Your task to perform on an android device: Open the web browser Image 0: 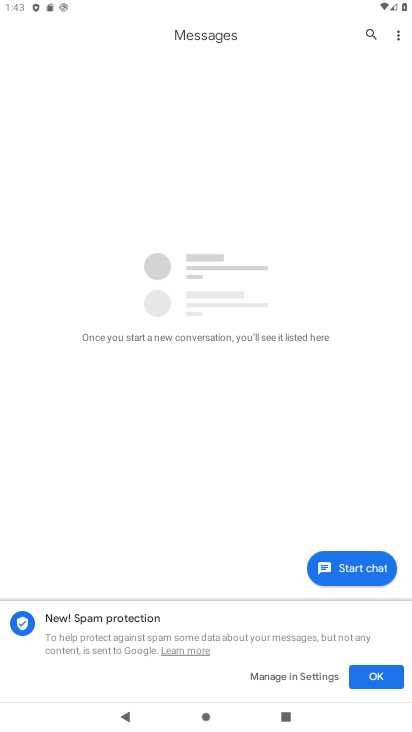
Step 0: press home button
Your task to perform on an android device: Open the web browser Image 1: 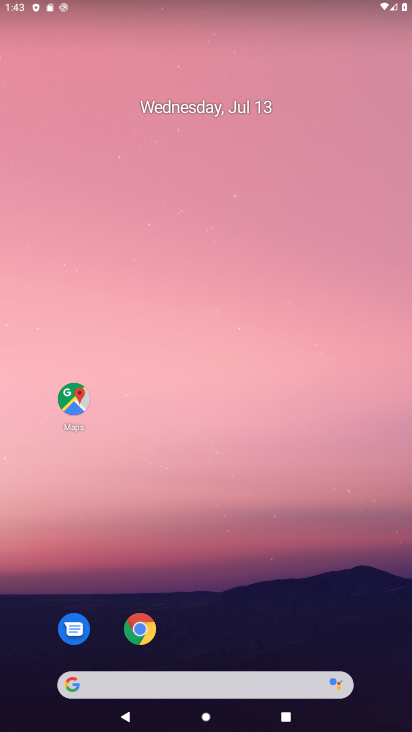
Step 1: click (140, 630)
Your task to perform on an android device: Open the web browser Image 2: 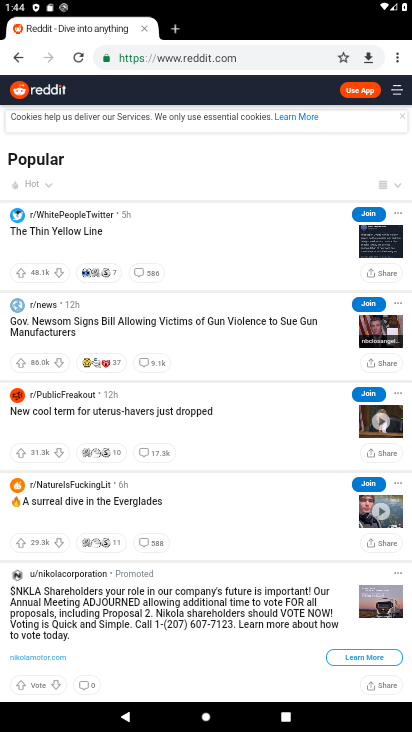
Step 2: task complete